Your task to perform on an android device: Find coffee shops on Maps Image 0: 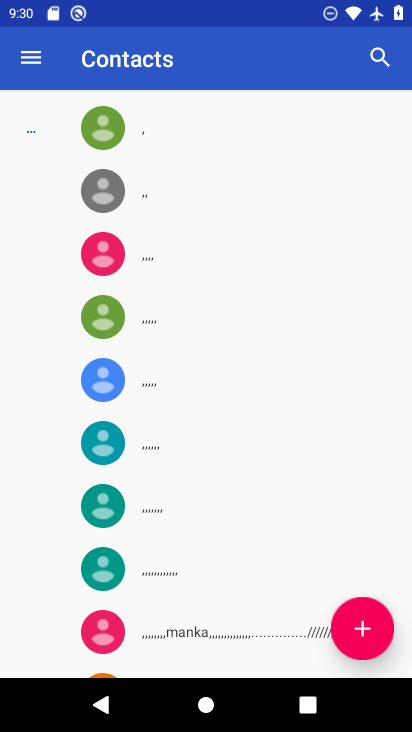
Step 0: press home button
Your task to perform on an android device: Find coffee shops on Maps Image 1: 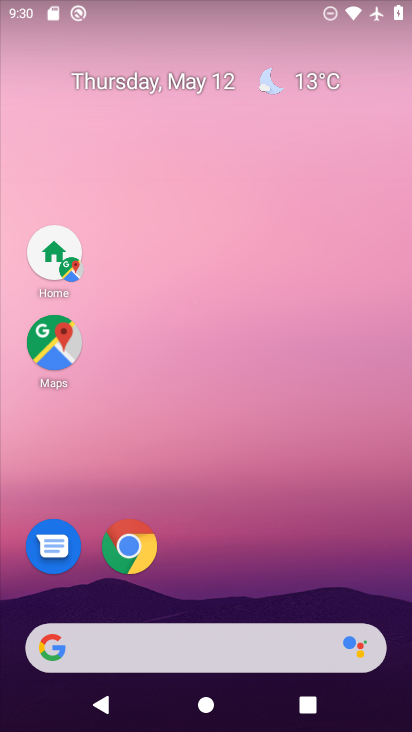
Step 1: click (62, 364)
Your task to perform on an android device: Find coffee shops on Maps Image 2: 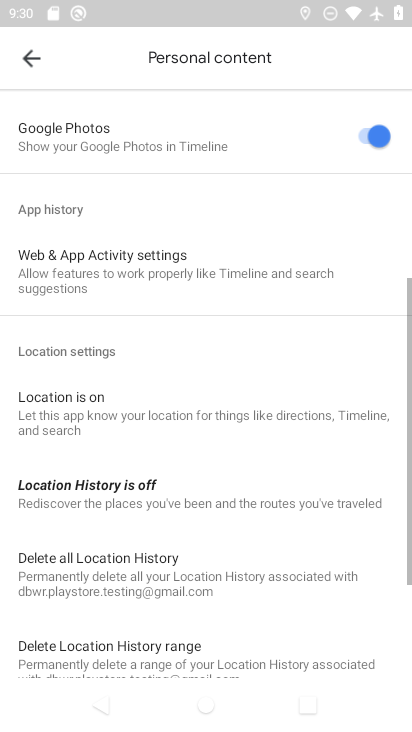
Step 2: click (30, 63)
Your task to perform on an android device: Find coffee shops on Maps Image 3: 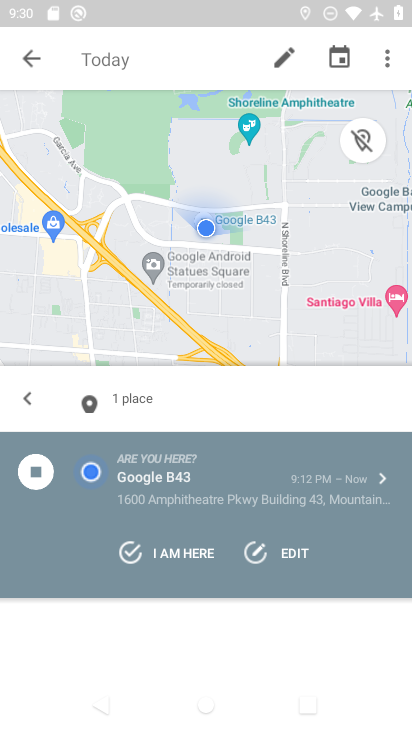
Step 3: click (30, 63)
Your task to perform on an android device: Find coffee shops on Maps Image 4: 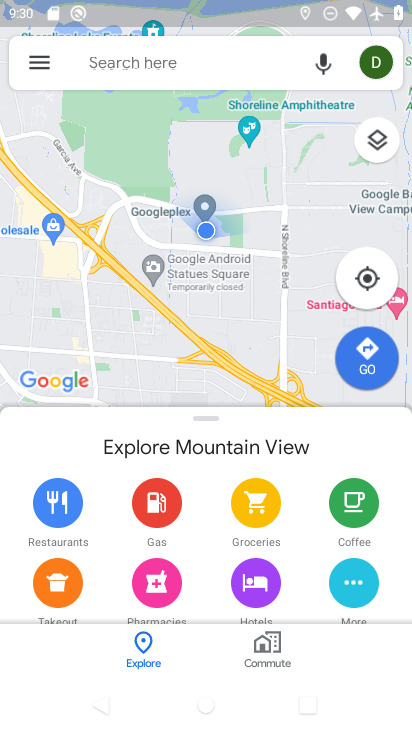
Step 4: click (198, 62)
Your task to perform on an android device: Find coffee shops on Maps Image 5: 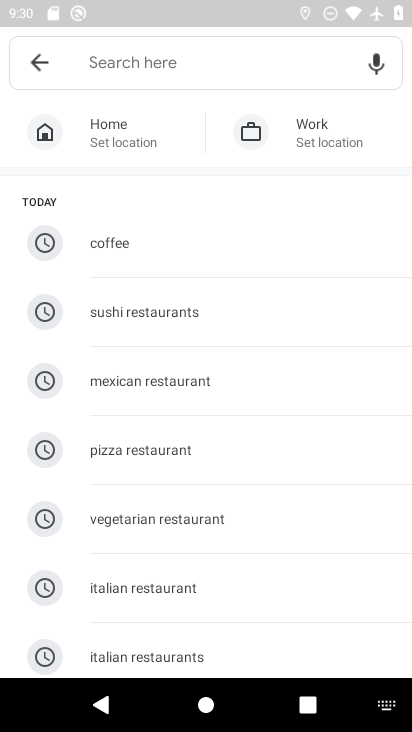
Step 5: click (100, 239)
Your task to perform on an android device: Find coffee shops on Maps Image 6: 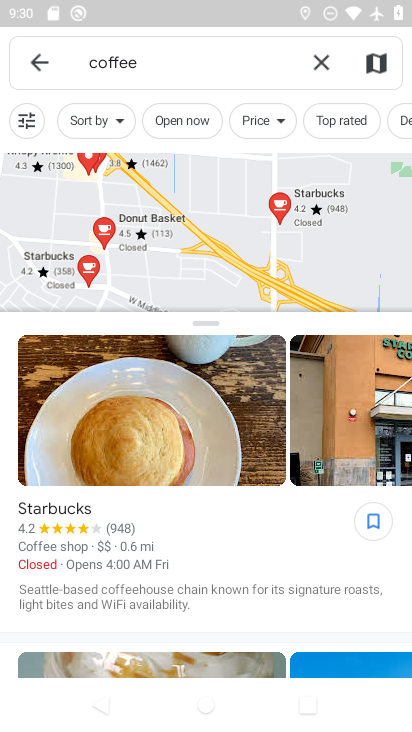
Step 6: task complete